Your task to perform on an android device: Open the map Image 0: 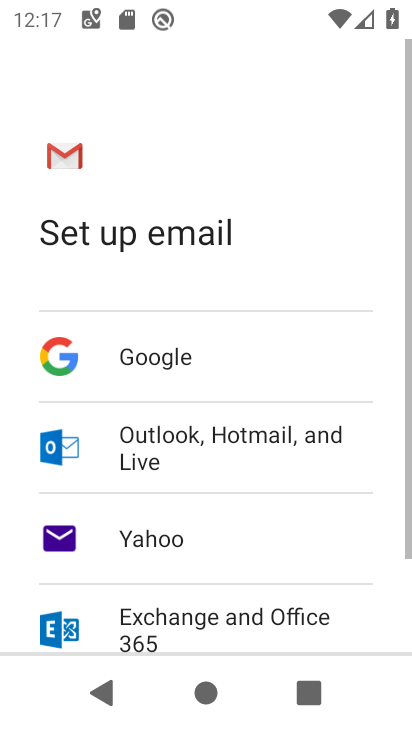
Step 0: press home button
Your task to perform on an android device: Open the map Image 1: 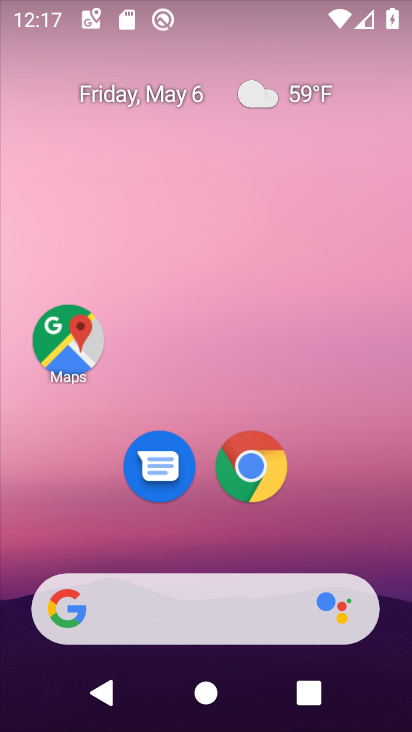
Step 1: click (82, 338)
Your task to perform on an android device: Open the map Image 2: 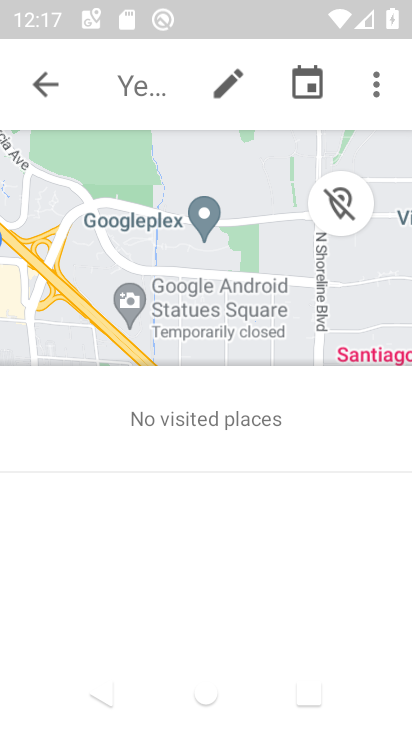
Step 2: task complete